Your task to perform on an android device: create a new album in the google photos Image 0: 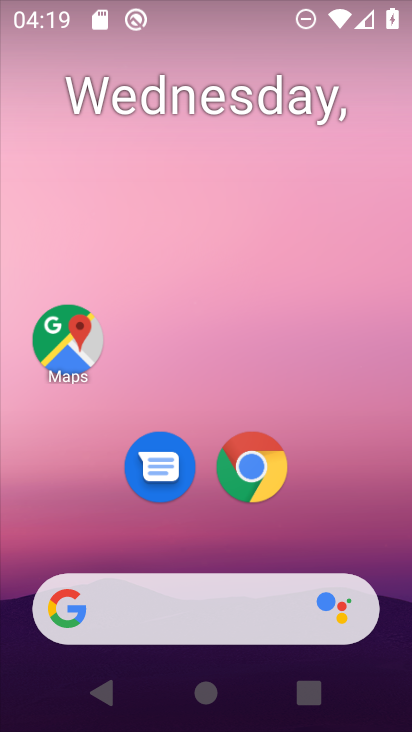
Step 0: drag from (375, 565) to (282, 139)
Your task to perform on an android device: create a new album in the google photos Image 1: 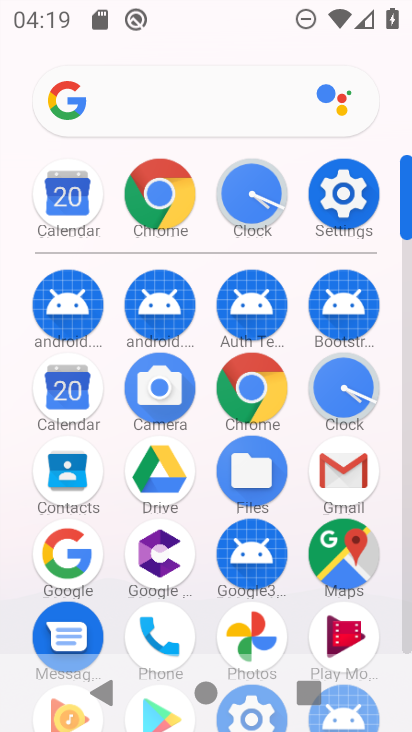
Step 1: click (405, 625)
Your task to perform on an android device: create a new album in the google photos Image 2: 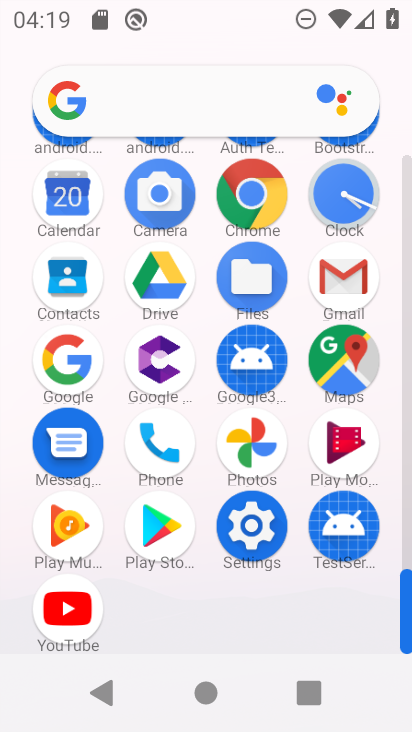
Step 2: click (252, 444)
Your task to perform on an android device: create a new album in the google photos Image 3: 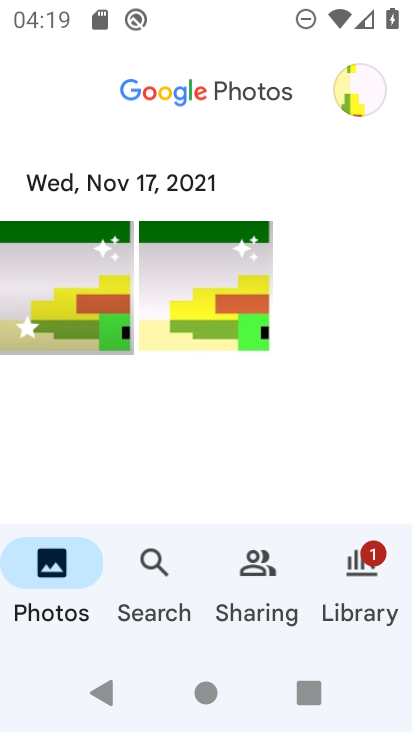
Step 3: click (363, 574)
Your task to perform on an android device: create a new album in the google photos Image 4: 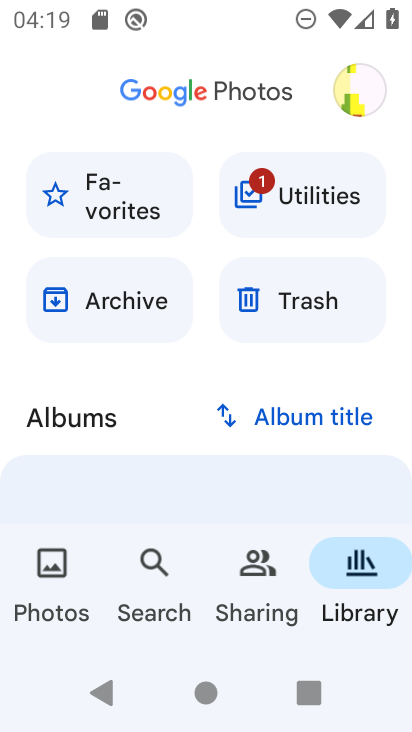
Step 4: drag from (142, 424) to (238, 125)
Your task to perform on an android device: create a new album in the google photos Image 5: 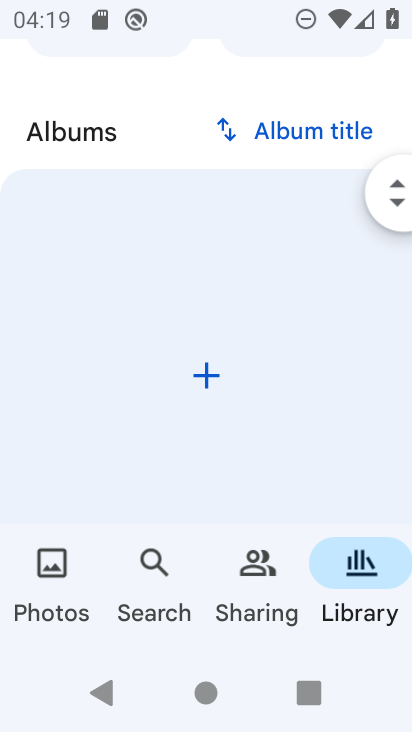
Step 5: drag from (202, 407) to (231, 190)
Your task to perform on an android device: create a new album in the google photos Image 6: 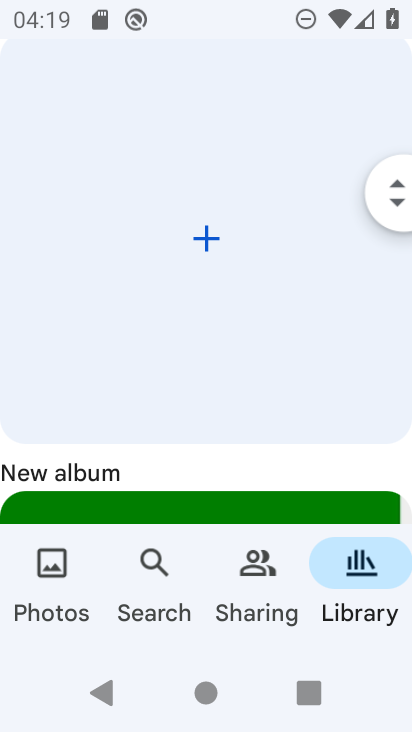
Step 6: click (206, 238)
Your task to perform on an android device: create a new album in the google photos Image 7: 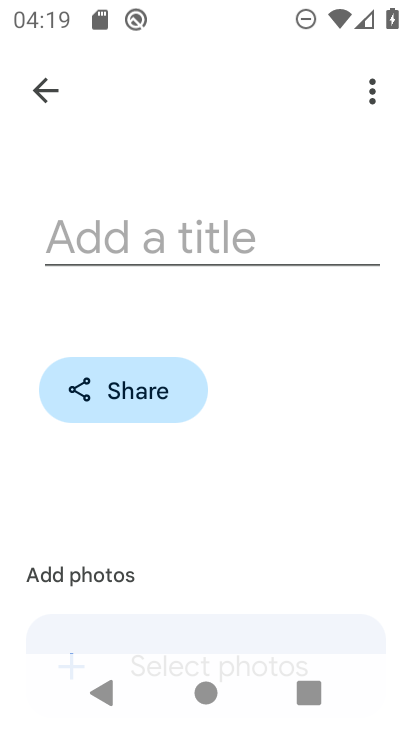
Step 7: click (135, 232)
Your task to perform on an android device: create a new album in the google photos Image 8: 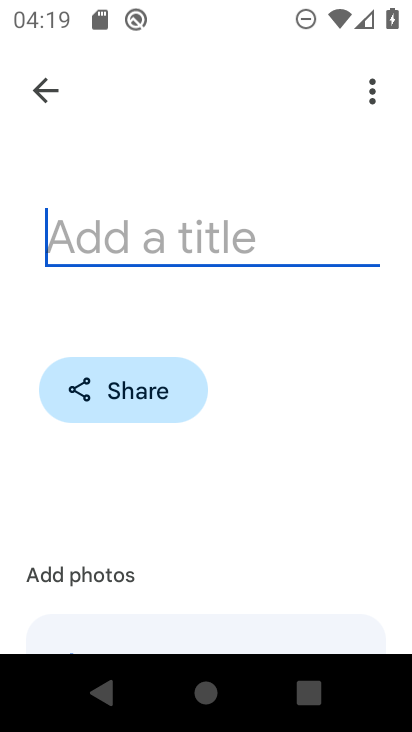
Step 8: type "fjkopgd"
Your task to perform on an android device: create a new album in the google photos Image 9: 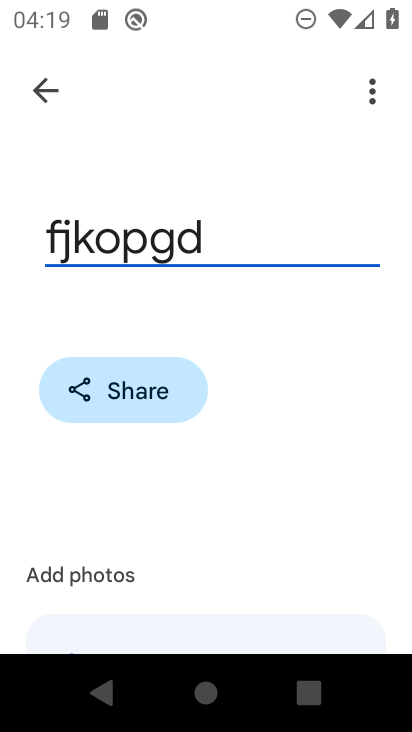
Step 9: drag from (221, 562) to (277, 225)
Your task to perform on an android device: create a new album in the google photos Image 10: 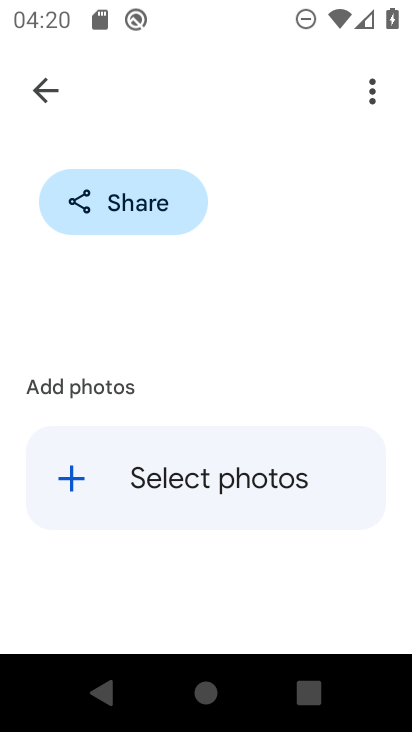
Step 10: click (71, 475)
Your task to perform on an android device: create a new album in the google photos Image 11: 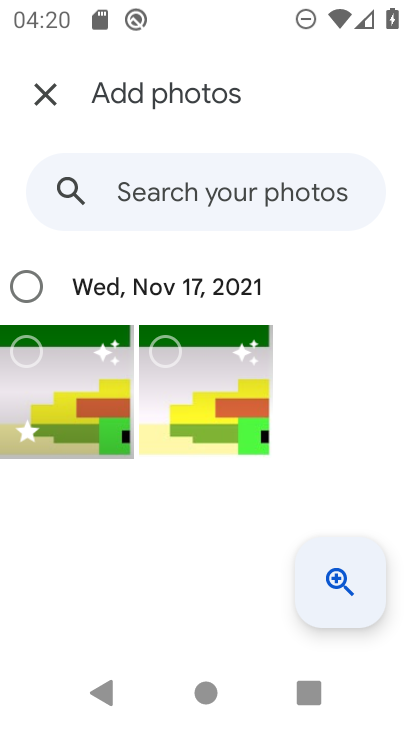
Step 11: click (26, 354)
Your task to perform on an android device: create a new album in the google photos Image 12: 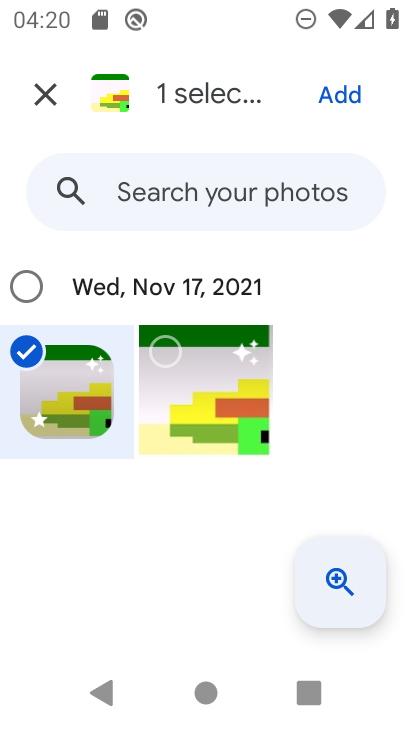
Step 12: click (164, 352)
Your task to perform on an android device: create a new album in the google photos Image 13: 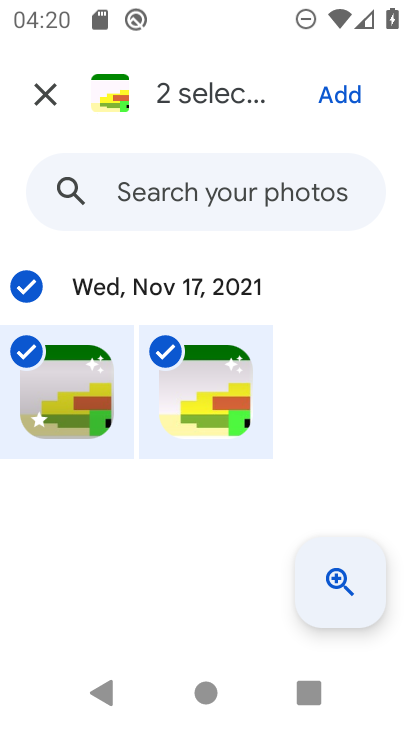
Step 13: click (346, 92)
Your task to perform on an android device: create a new album in the google photos Image 14: 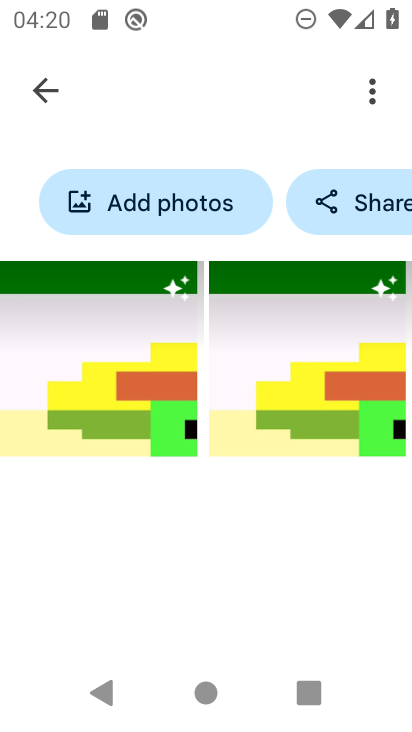
Step 14: task complete